Your task to perform on an android device: Is it going to rain today? Image 0: 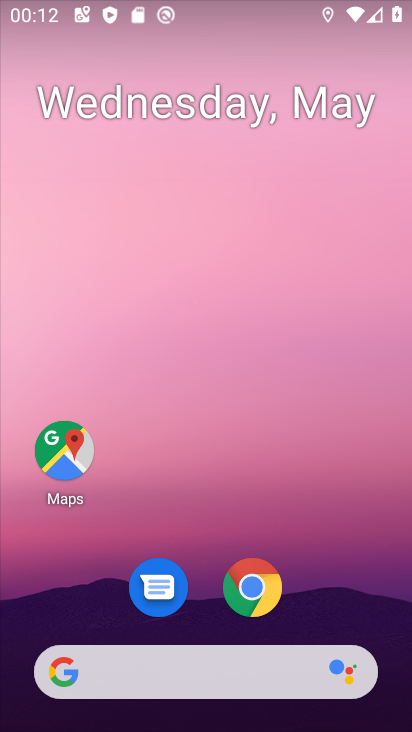
Step 0: drag from (18, 202) to (239, 269)
Your task to perform on an android device: Is it going to rain today? Image 1: 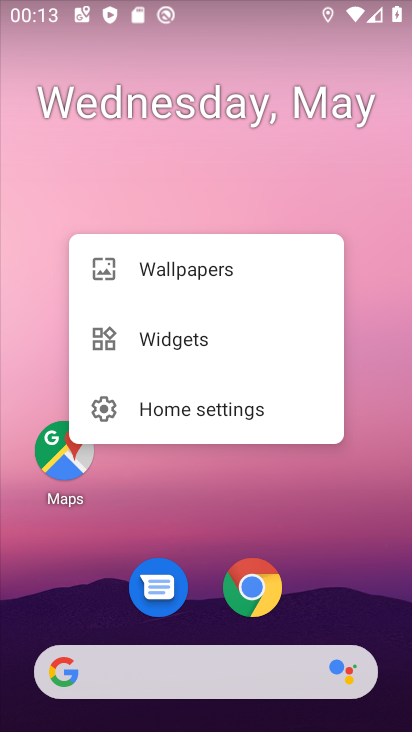
Step 1: click (43, 202)
Your task to perform on an android device: Is it going to rain today? Image 2: 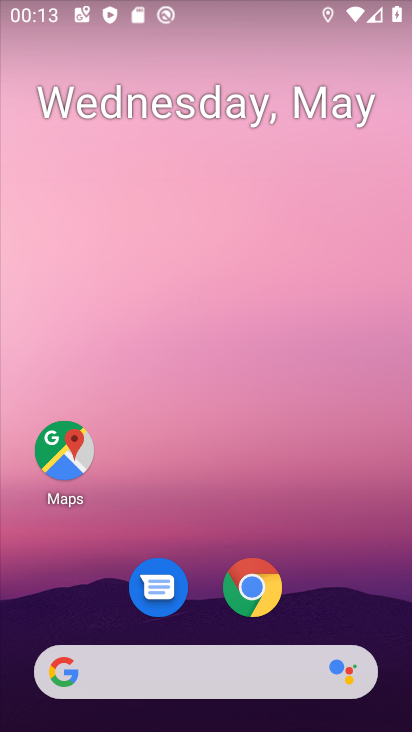
Step 2: drag from (13, 240) to (384, 269)
Your task to perform on an android device: Is it going to rain today? Image 3: 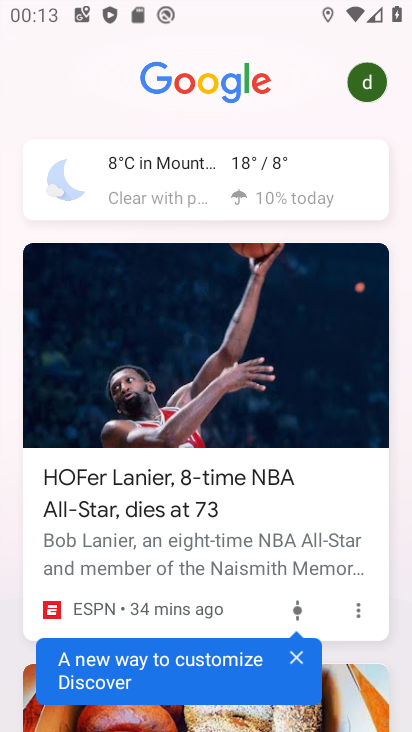
Step 3: click (250, 168)
Your task to perform on an android device: Is it going to rain today? Image 4: 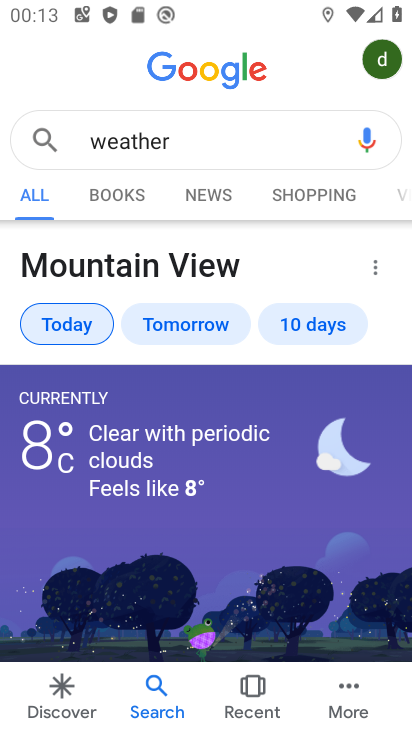
Step 4: task complete